Your task to perform on an android device: Open my contact list Image 0: 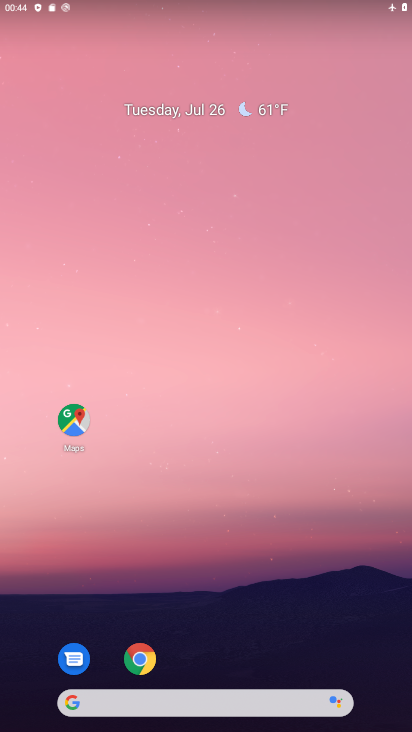
Step 0: drag from (283, 105) to (290, 67)
Your task to perform on an android device: Open my contact list Image 1: 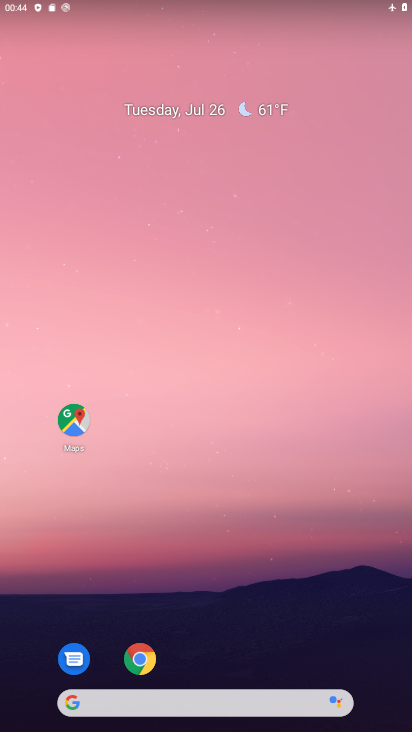
Step 1: drag from (262, 675) to (325, 121)
Your task to perform on an android device: Open my contact list Image 2: 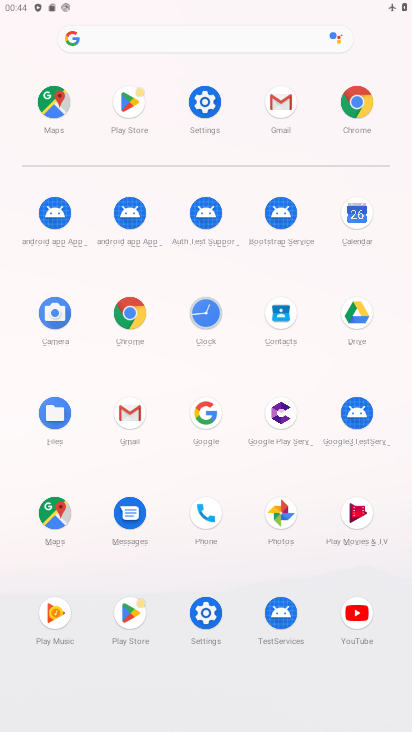
Step 2: click (292, 318)
Your task to perform on an android device: Open my contact list Image 3: 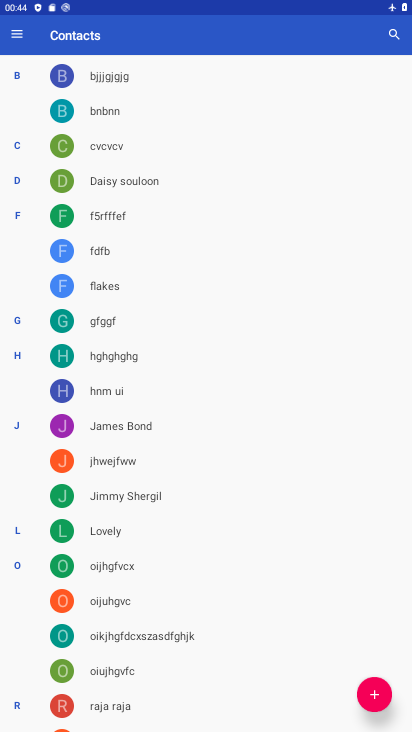
Step 3: task complete